Your task to perform on an android device: Show me productivity apps on the Play Store Image 0: 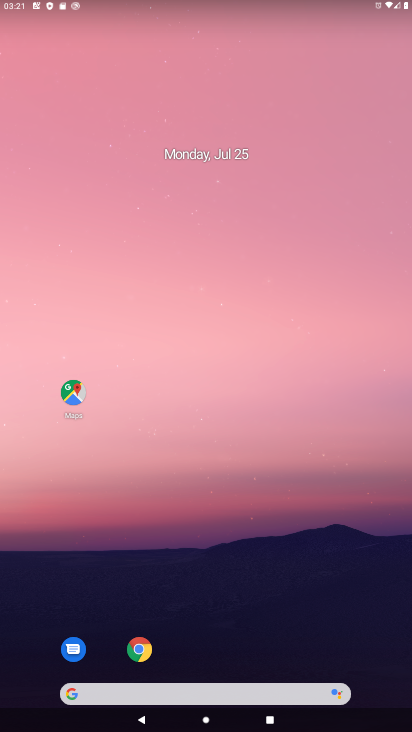
Step 0: drag from (382, 658) to (315, 185)
Your task to perform on an android device: Show me productivity apps on the Play Store Image 1: 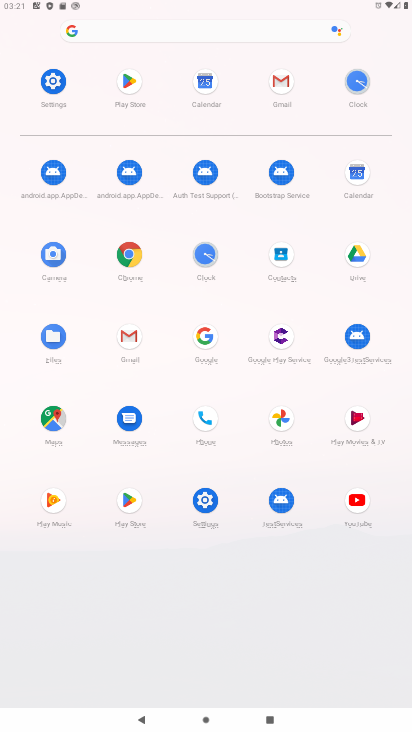
Step 1: click (131, 500)
Your task to perform on an android device: Show me productivity apps on the Play Store Image 2: 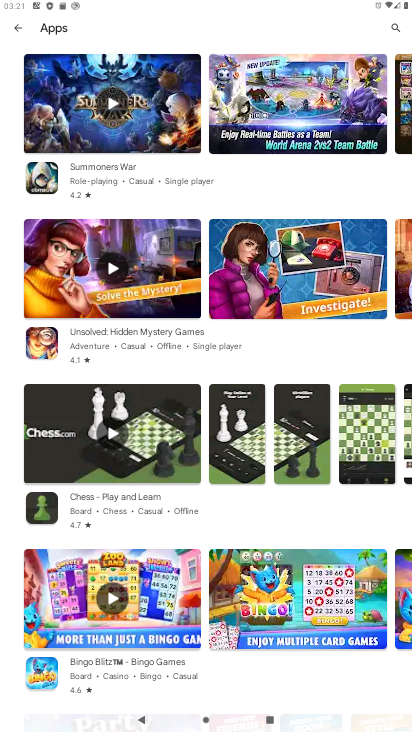
Step 2: press back button
Your task to perform on an android device: Show me productivity apps on the Play Store Image 3: 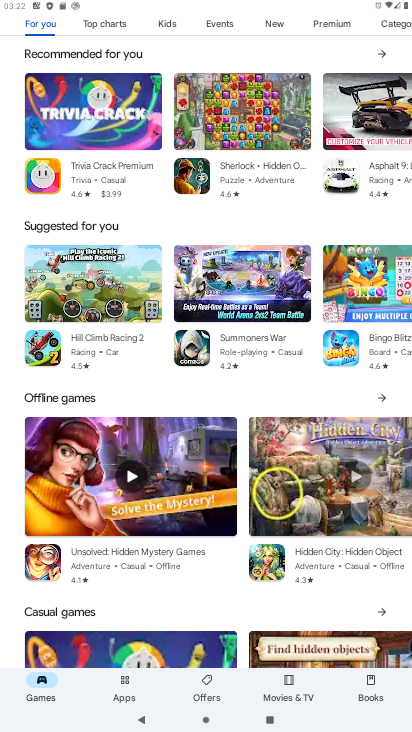
Step 3: click (121, 683)
Your task to perform on an android device: Show me productivity apps on the Play Store Image 4: 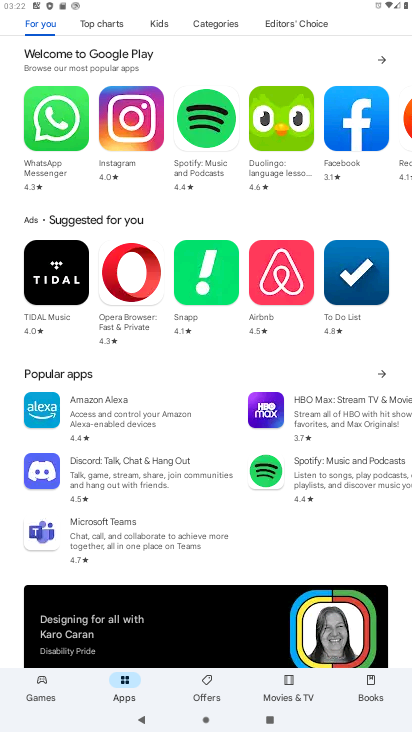
Step 4: drag from (232, 562) to (212, 74)
Your task to perform on an android device: Show me productivity apps on the Play Store Image 5: 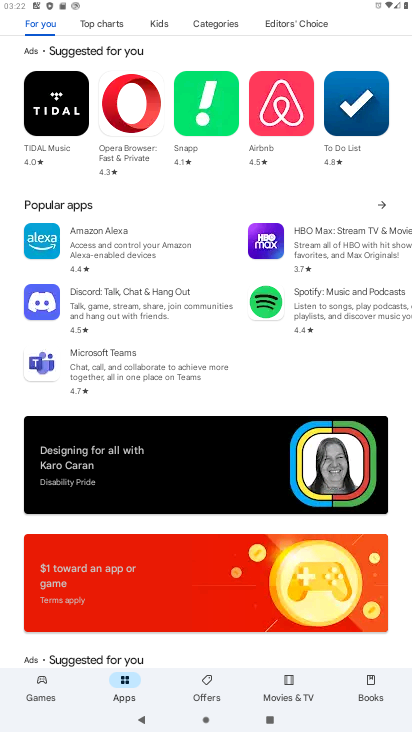
Step 5: drag from (230, 406) to (209, 16)
Your task to perform on an android device: Show me productivity apps on the Play Store Image 6: 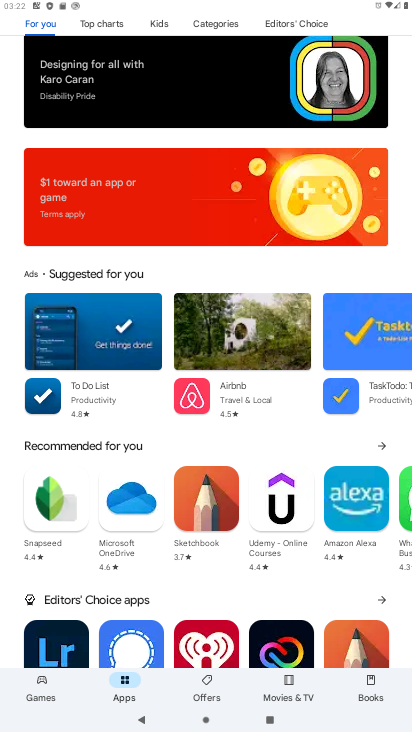
Step 6: drag from (250, 601) to (223, 137)
Your task to perform on an android device: Show me productivity apps on the Play Store Image 7: 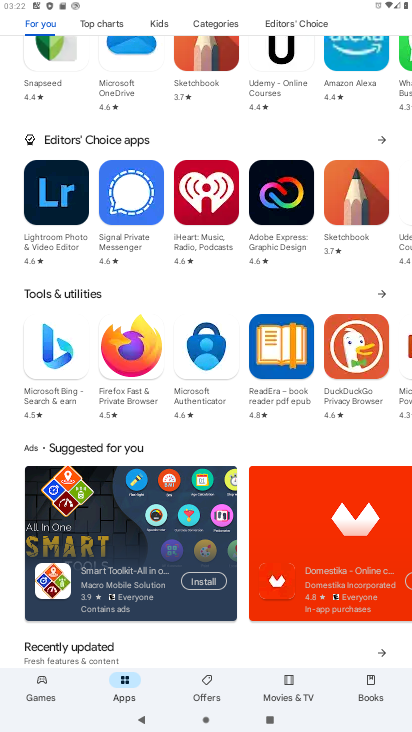
Step 7: click (209, 25)
Your task to perform on an android device: Show me productivity apps on the Play Store Image 8: 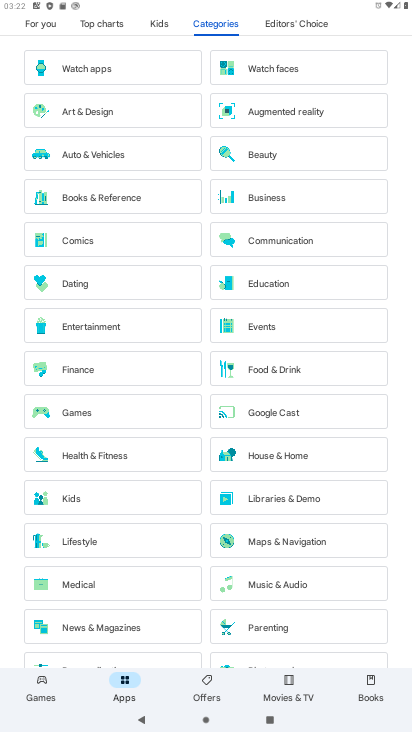
Step 8: drag from (207, 618) to (210, 412)
Your task to perform on an android device: Show me productivity apps on the Play Store Image 9: 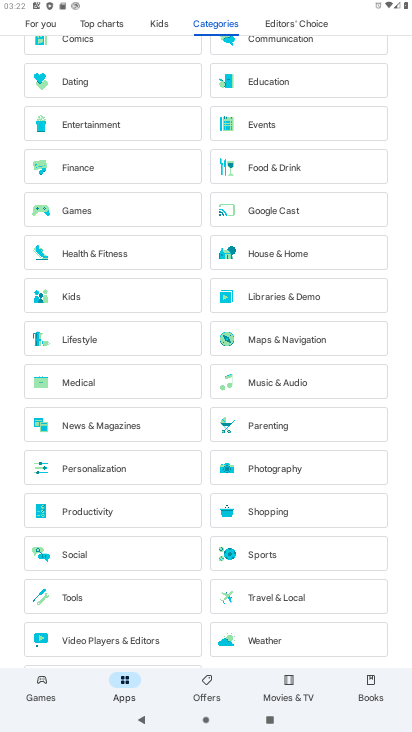
Step 9: click (87, 512)
Your task to perform on an android device: Show me productivity apps on the Play Store Image 10: 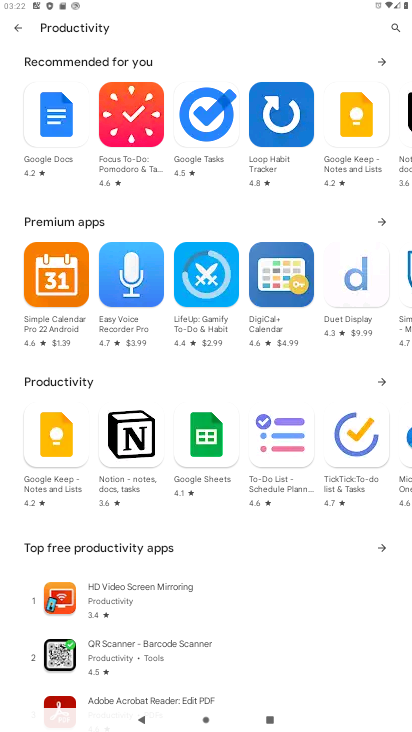
Step 10: click (384, 381)
Your task to perform on an android device: Show me productivity apps on the Play Store Image 11: 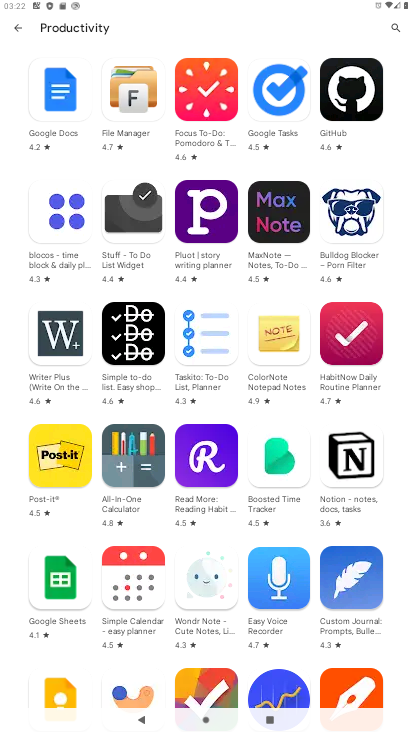
Step 11: task complete